Your task to perform on an android device: Search for hotels in Austin Image 0: 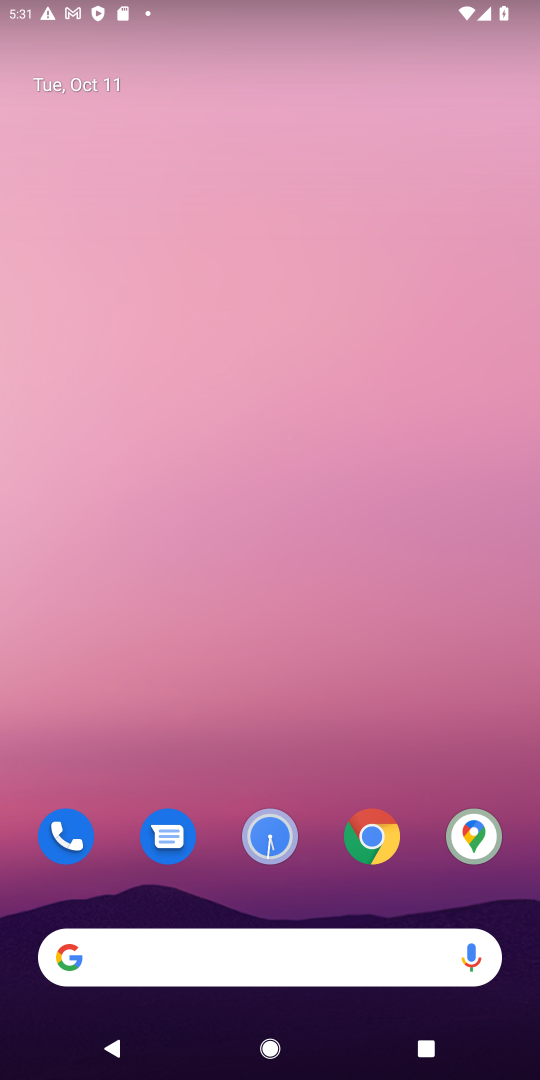
Step 0: click (373, 833)
Your task to perform on an android device: Search for hotels in Austin Image 1: 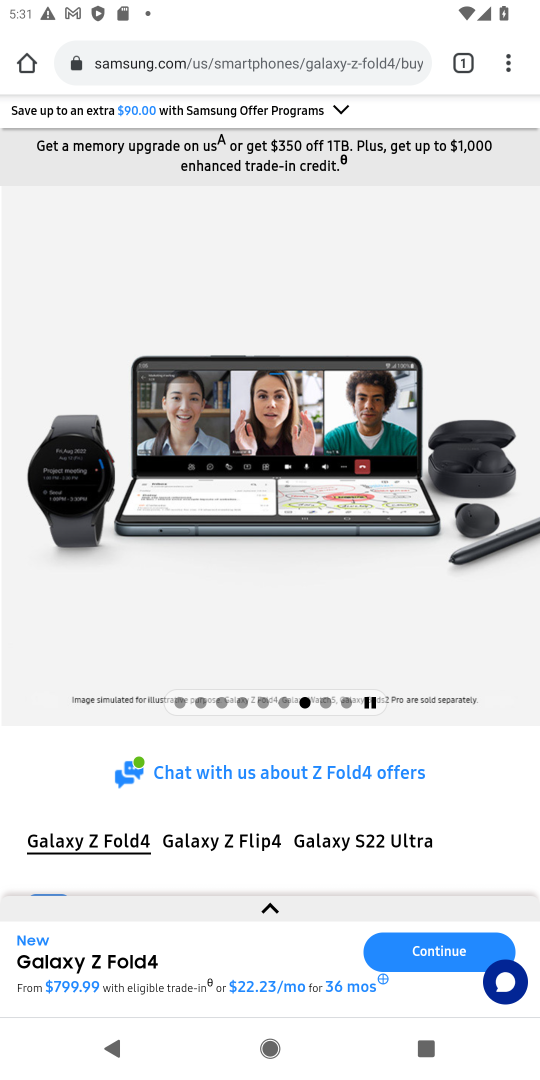
Step 1: click (229, 44)
Your task to perform on an android device: Search for hotels in Austin Image 2: 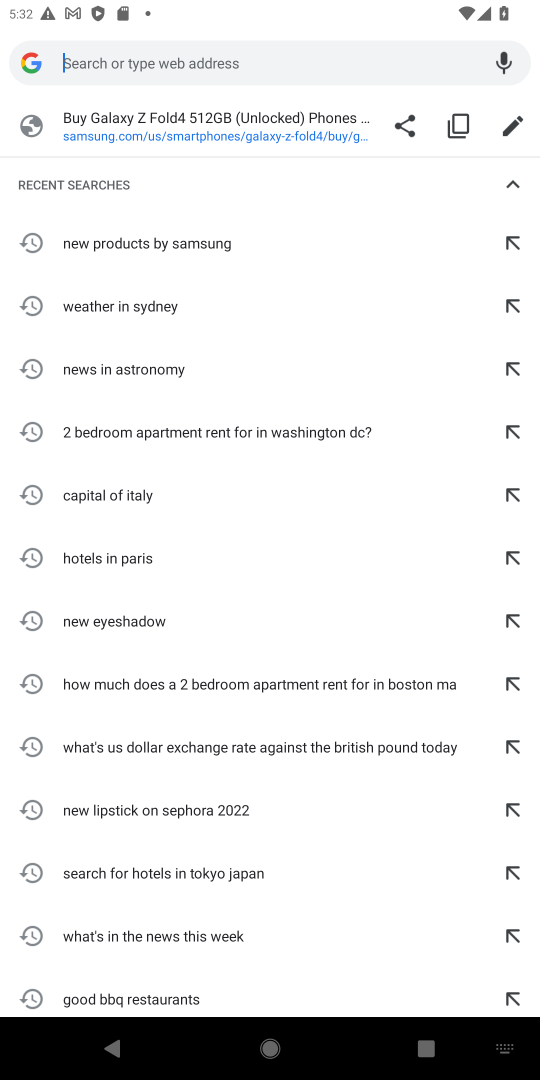
Step 2: type "hotels in austin"
Your task to perform on an android device: Search for hotels in Austin Image 3: 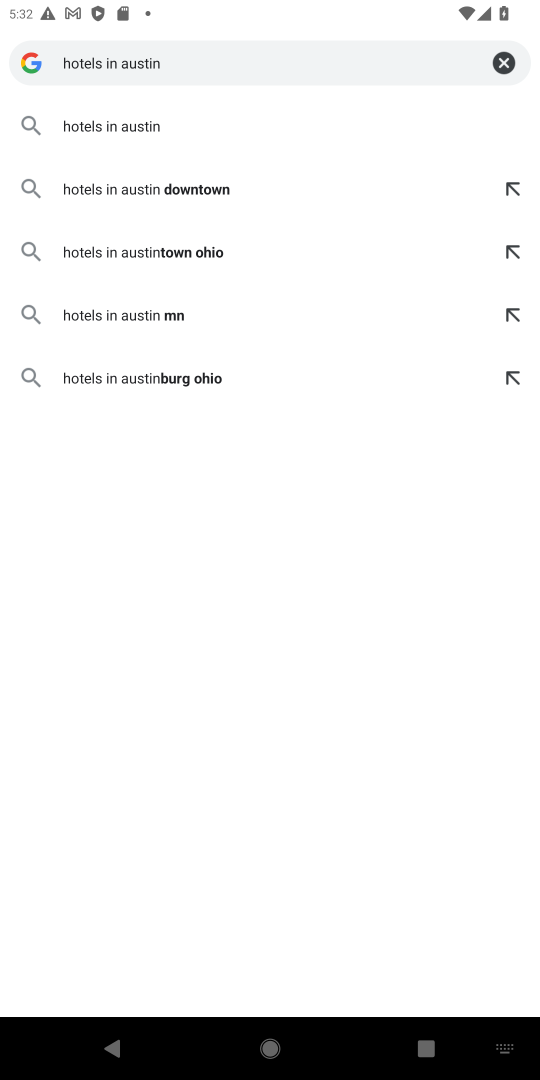
Step 3: click (120, 121)
Your task to perform on an android device: Search for hotels in Austin Image 4: 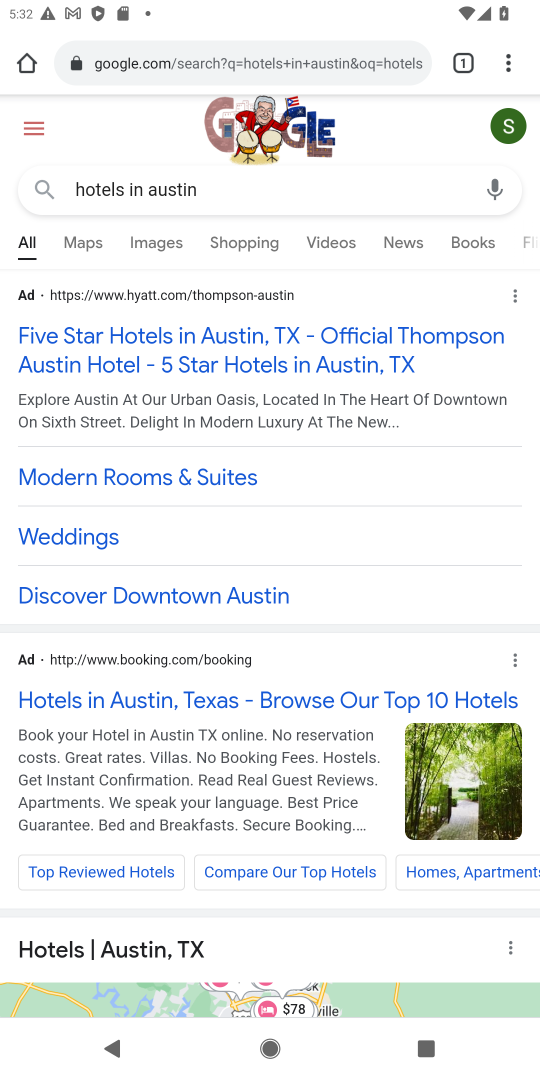
Step 4: click (125, 335)
Your task to perform on an android device: Search for hotels in Austin Image 5: 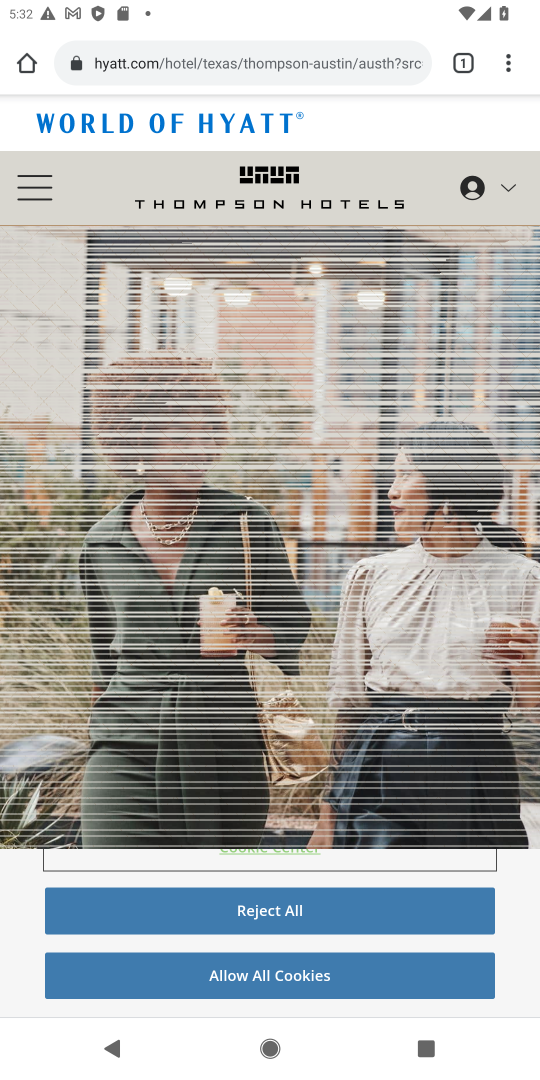
Step 5: click (256, 978)
Your task to perform on an android device: Search for hotels in Austin Image 6: 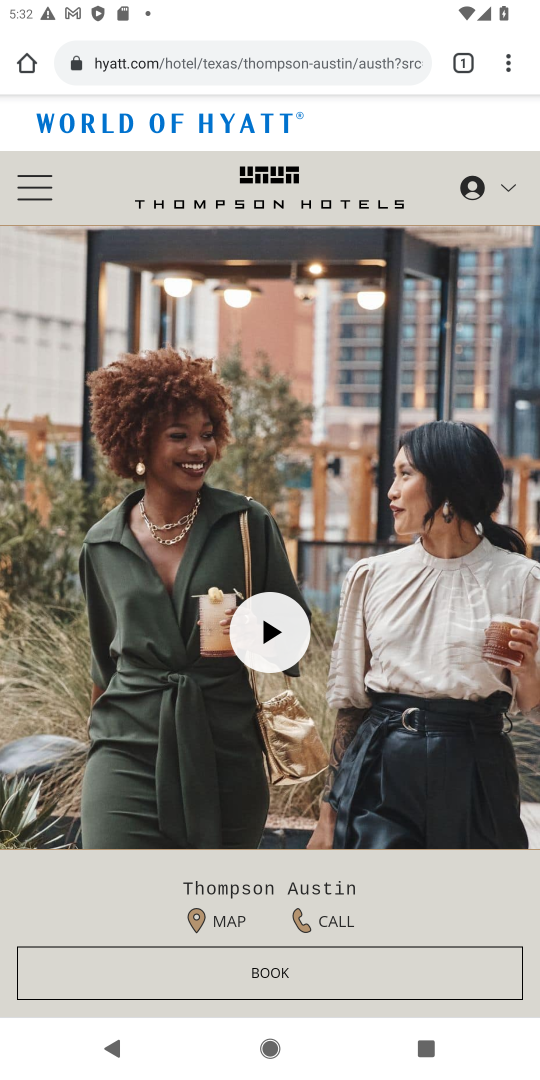
Step 6: task complete